Your task to perform on an android device: turn vacation reply on in the gmail app Image 0: 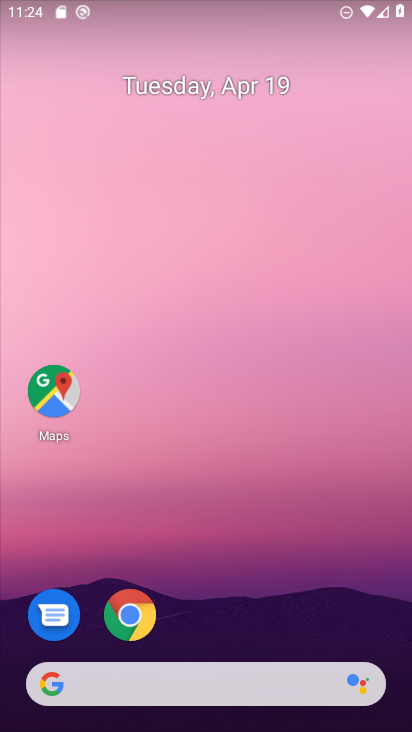
Step 0: drag from (212, 670) to (219, 271)
Your task to perform on an android device: turn vacation reply on in the gmail app Image 1: 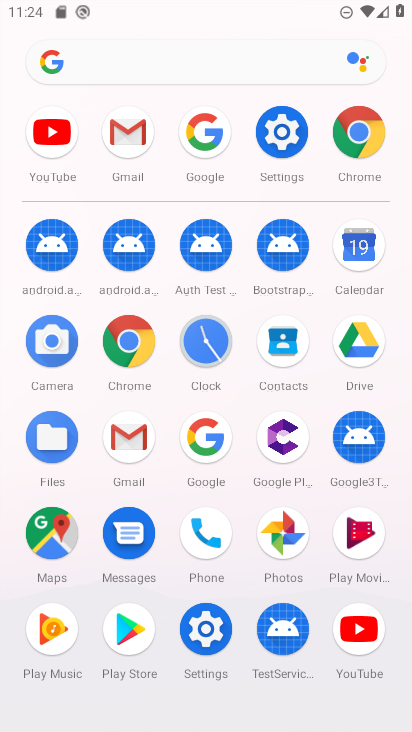
Step 1: click (136, 139)
Your task to perform on an android device: turn vacation reply on in the gmail app Image 2: 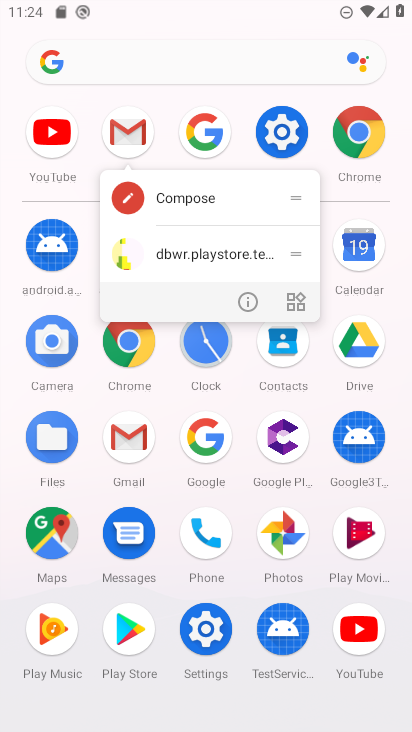
Step 2: click (136, 139)
Your task to perform on an android device: turn vacation reply on in the gmail app Image 3: 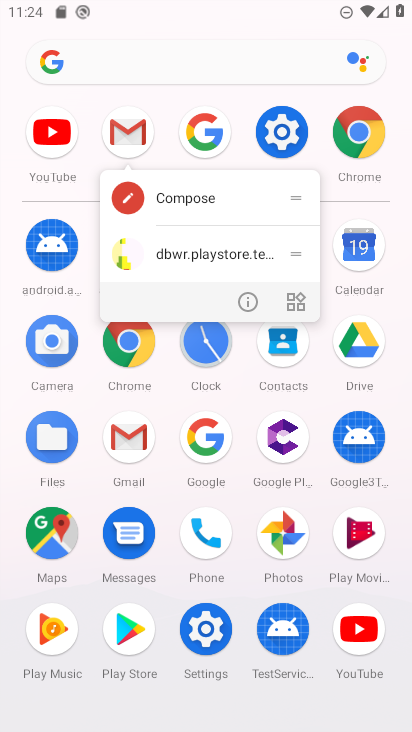
Step 3: click (121, 121)
Your task to perform on an android device: turn vacation reply on in the gmail app Image 4: 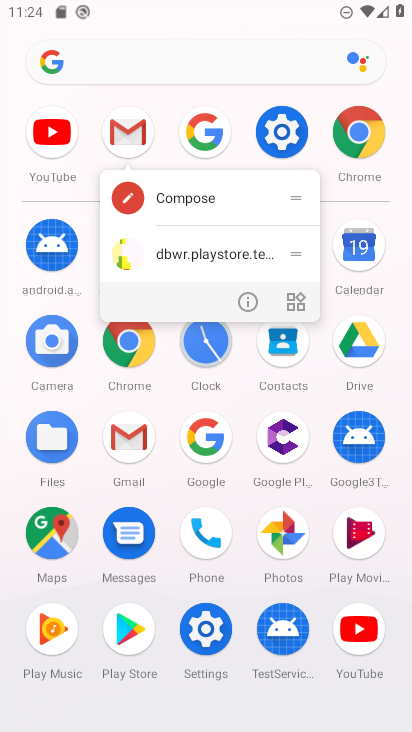
Step 4: click (123, 130)
Your task to perform on an android device: turn vacation reply on in the gmail app Image 5: 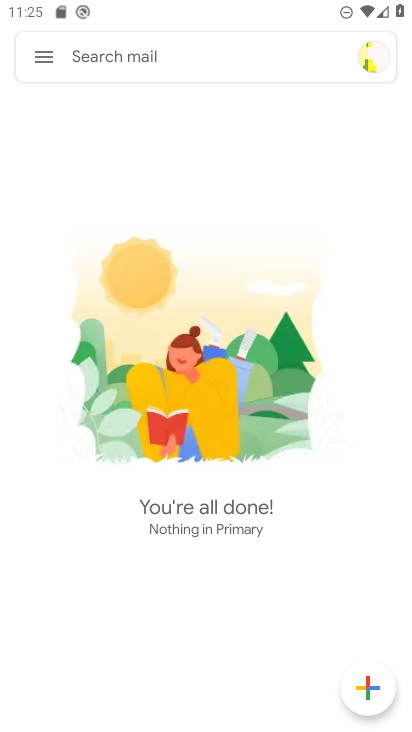
Step 5: click (45, 50)
Your task to perform on an android device: turn vacation reply on in the gmail app Image 6: 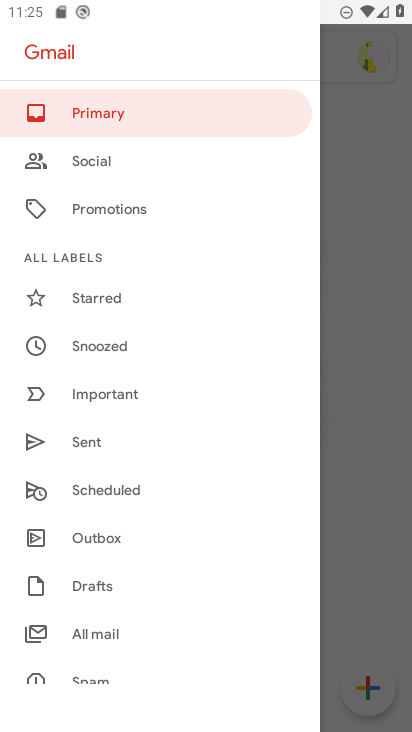
Step 6: drag from (140, 667) to (135, 372)
Your task to perform on an android device: turn vacation reply on in the gmail app Image 7: 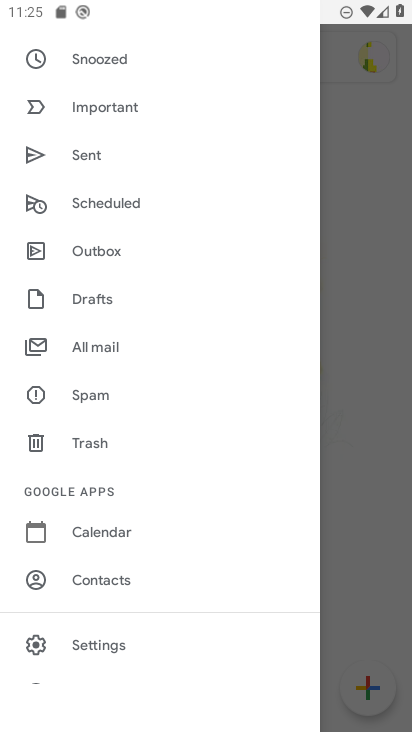
Step 7: click (97, 637)
Your task to perform on an android device: turn vacation reply on in the gmail app Image 8: 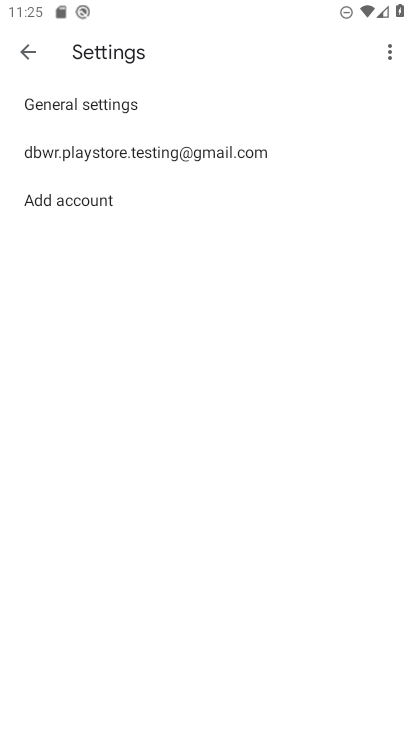
Step 8: click (114, 153)
Your task to perform on an android device: turn vacation reply on in the gmail app Image 9: 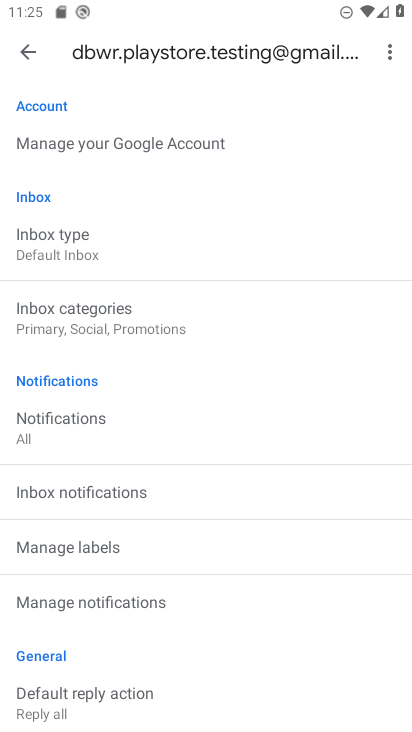
Step 9: drag from (179, 707) to (195, 375)
Your task to perform on an android device: turn vacation reply on in the gmail app Image 10: 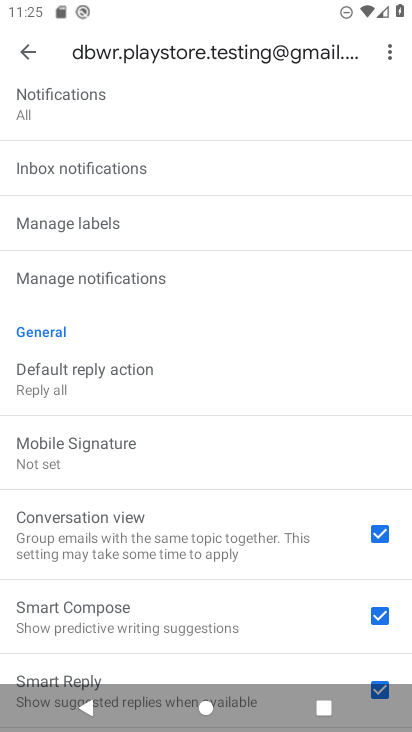
Step 10: drag from (229, 635) to (191, 362)
Your task to perform on an android device: turn vacation reply on in the gmail app Image 11: 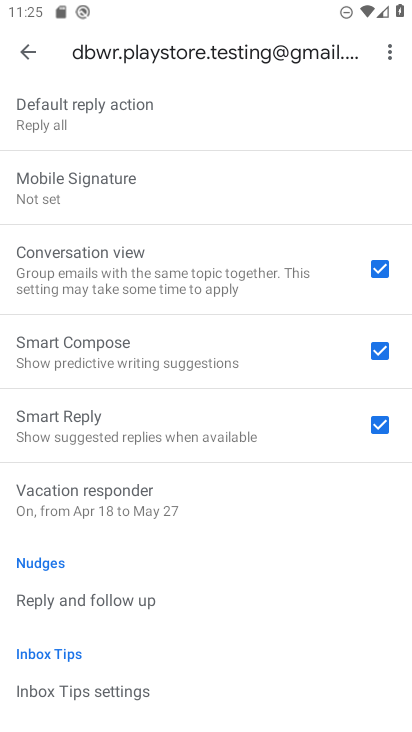
Step 11: click (147, 506)
Your task to perform on an android device: turn vacation reply on in the gmail app Image 12: 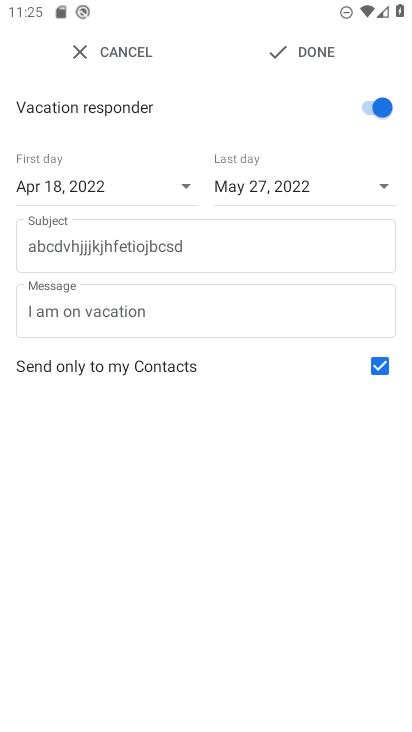
Step 12: click (323, 46)
Your task to perform on an android device: turn vacation reply on in the gmail app Image 13: 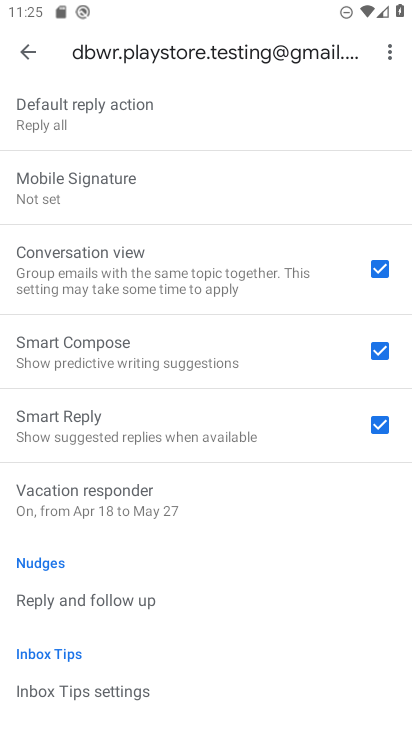
Step 13: task complete